Your task to perform on an android device: Open privacy settings Image 0: 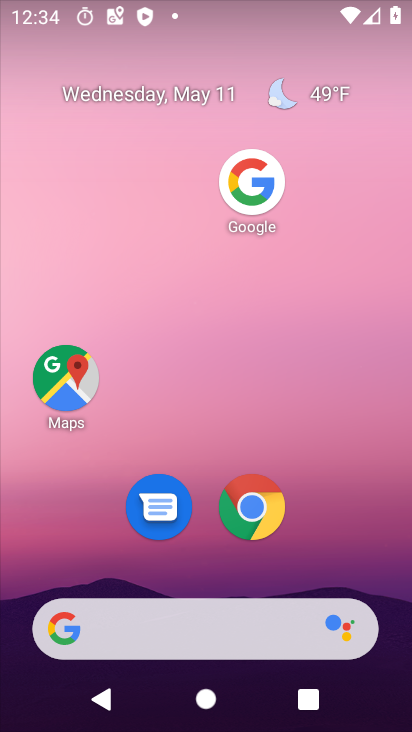
Step 0: drag from (201, 557) to (206, 30)
Your task to perform on an android device: Open privacy settings Image 1: 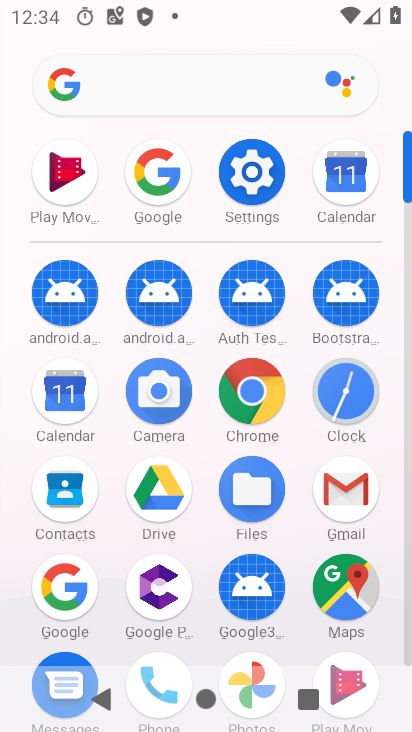
Step 1: click (251, 171)
Your task to perform on an android device: Open privacy settings Image 2: 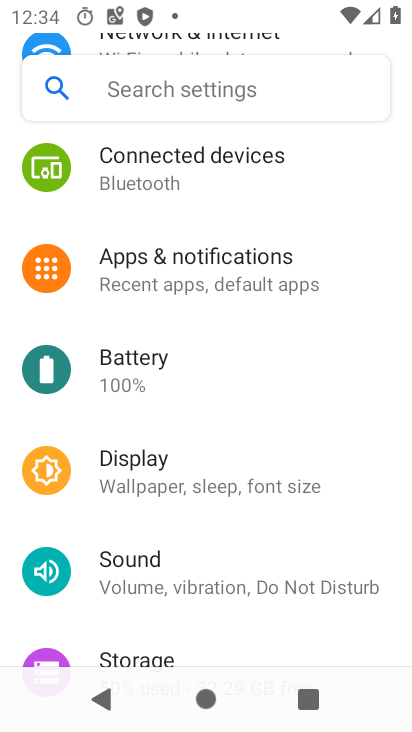
Step 2: drag from (209, 566) to (215, 62)
Your task to perform on an android device: Open privacy settings Image 3: 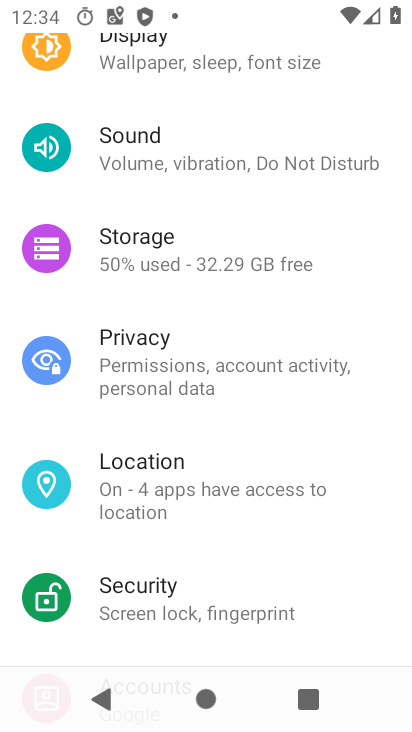
Step 3: click (128, 342)
Your task to perform on an android device: Open privacy settings Image 4: 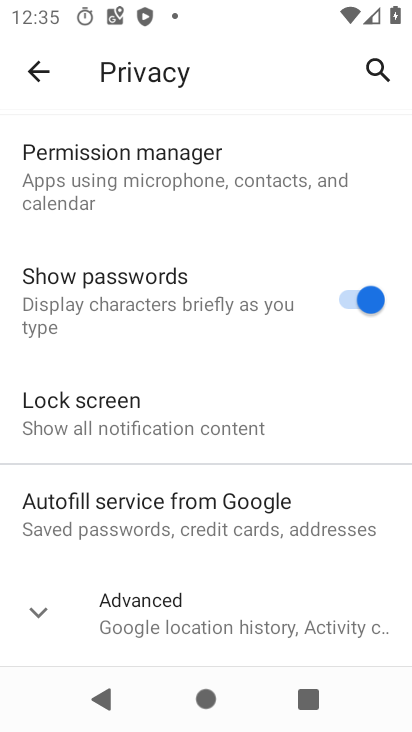
Step 4: task complete